Your task to perform on an android device: What's on my calendar today? Image 0: 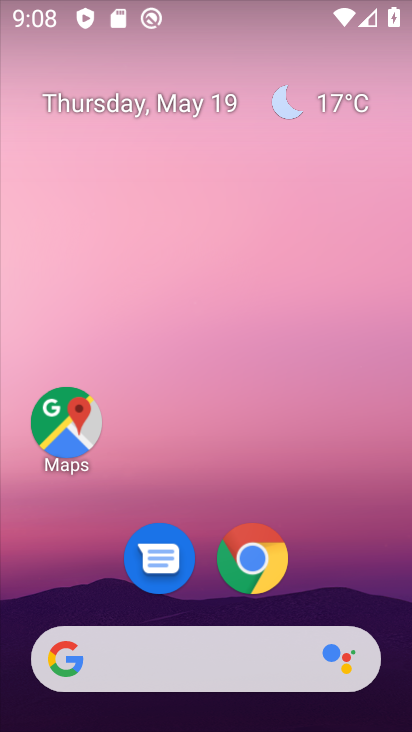
Step 0: drag from (216, 711) to (206, 82)
Your task to perform on an android device: What's on my calendar today? Image 1: 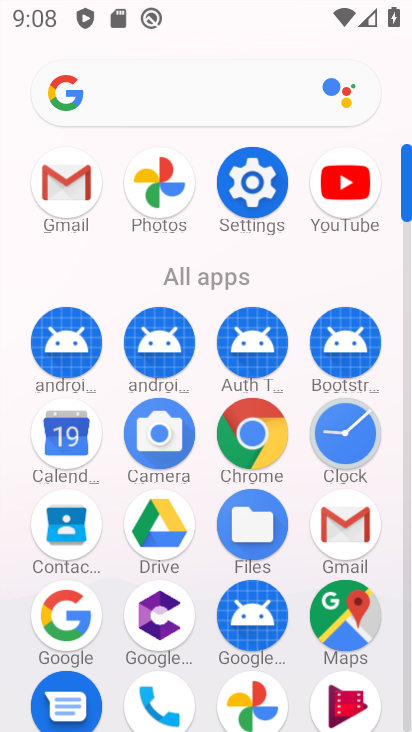
Step 1: click (67, 441)
Your task to perform on an android device: What's on my calendar today? Image 2: 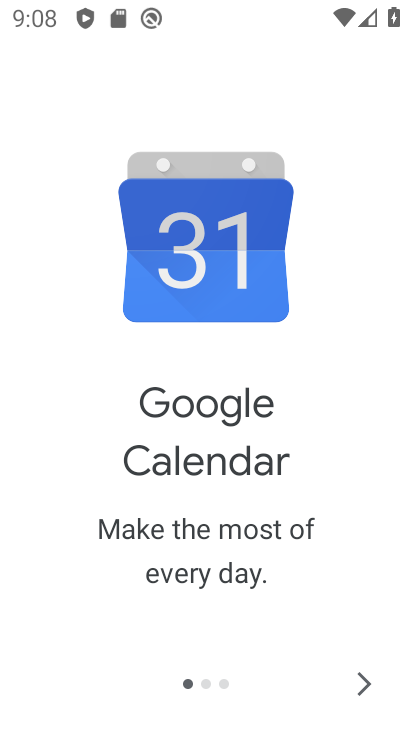
Step 2: click (368, 683)
Your task to perform on an android device: What's on my calendar today? Image 3: 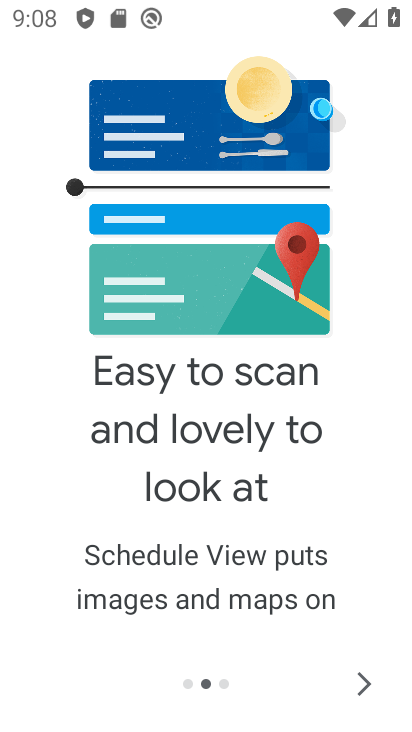
Step 3: click (367, 681)
Your task to perform on an android device: What's on my calendar today? Image 4: 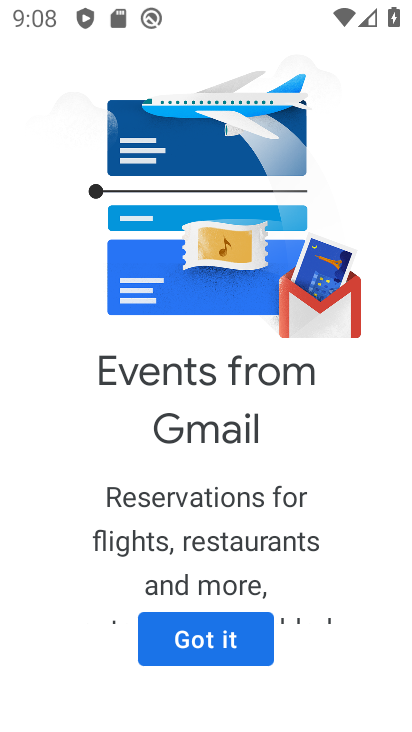
Step 4: click (214, 636)
Your task to perform on an android device: What's on my calendar today? Image 5: 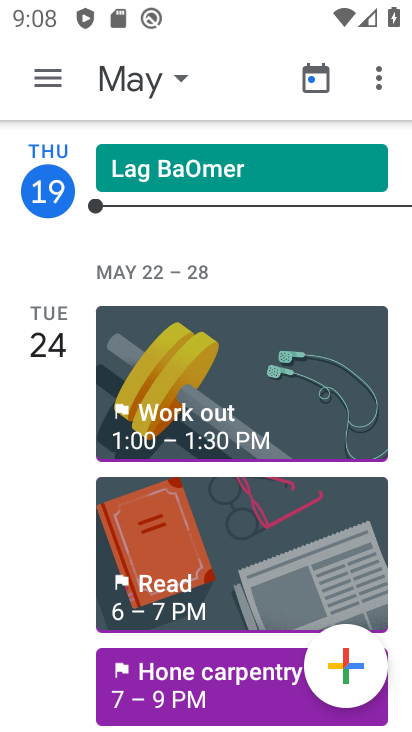
Step 5: click (132, 80)
Your task to perform on an android device: What's on my calendar today? Image 6: 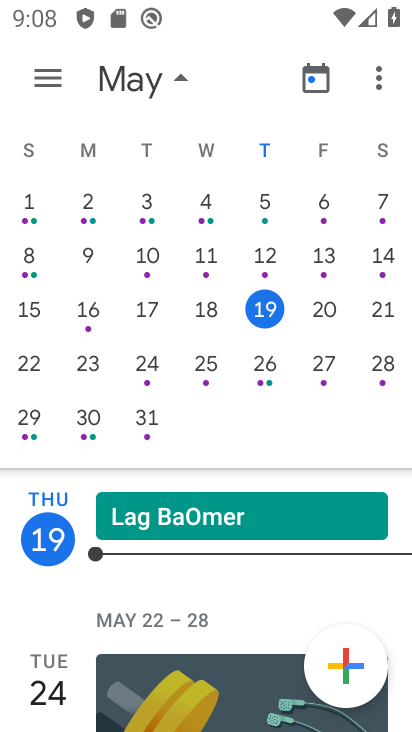
Step 6: click (266, 307)
Your task to perform on an android device: What's on my calendar today? Image 7: 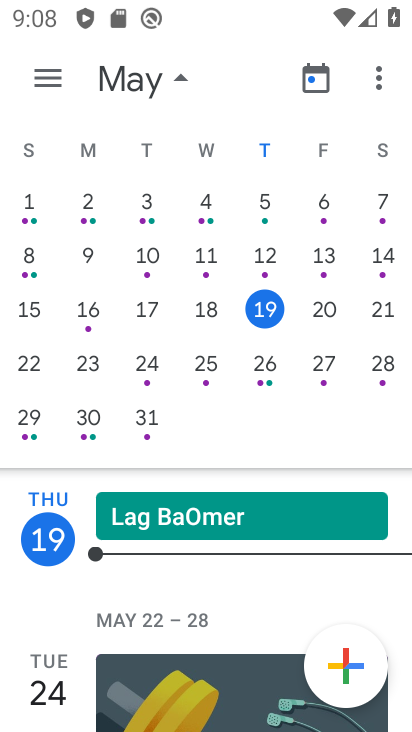
Step 7: click (45, 70)
Your task to perform on an android device: What's on my calendar today? Image 8: 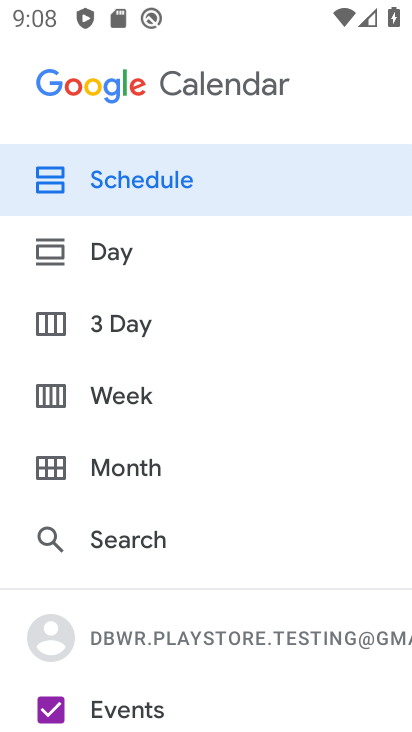
Step 8: drag from (119, 665) to (146, 331)
Your task to perform on an android device: What's on my calendar today? Image 9: 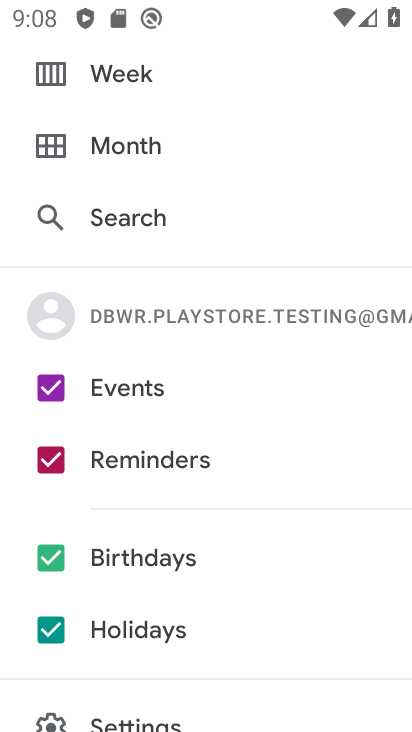
Step 9: drag from (227, 130) to (258, 546)
Your task to perform on an android device: What's on my calendar today? Image 10: 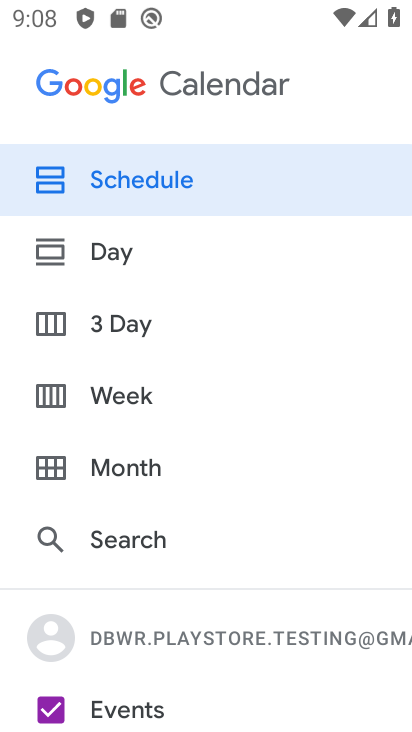
Step 10: click (143, 171)
Your task to perform on an android device: What's on my calendar today? Image 11: 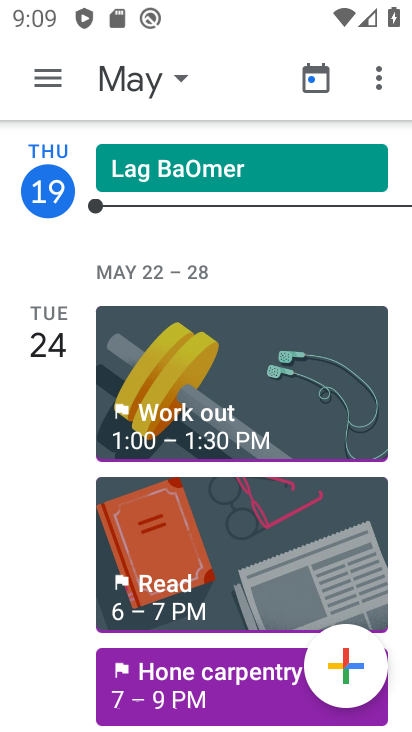
Step 11: task complete